Your task to perform on an android device: change the clock style Image 0: 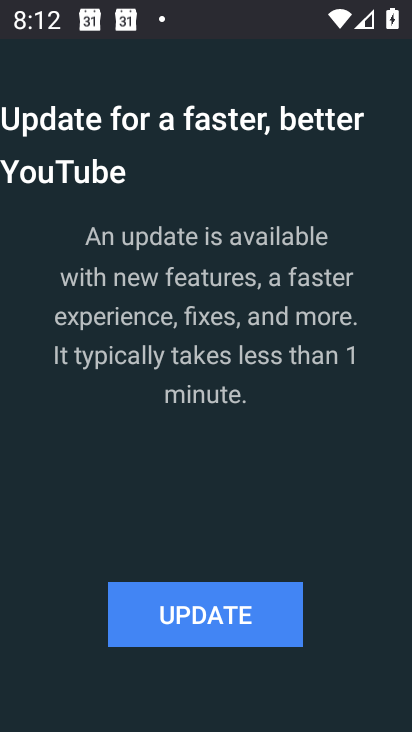
Step 0: press home button
Your task to perform on an android device: change the clock style Image 1: 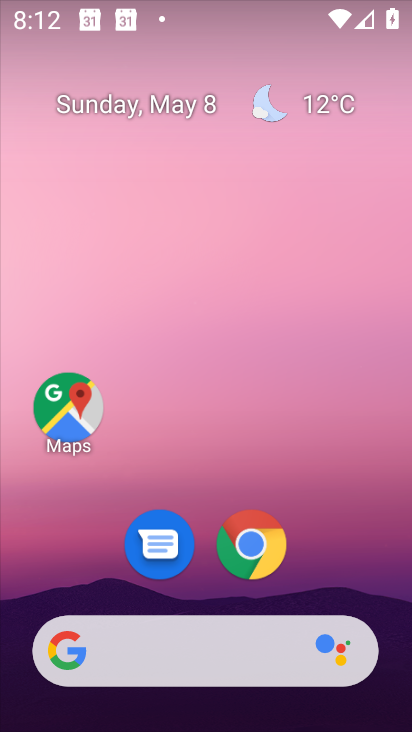
Step 1: drag from (355, 575) to (202, 40)
Your task to perform on an android device: change the clock style Image 2: 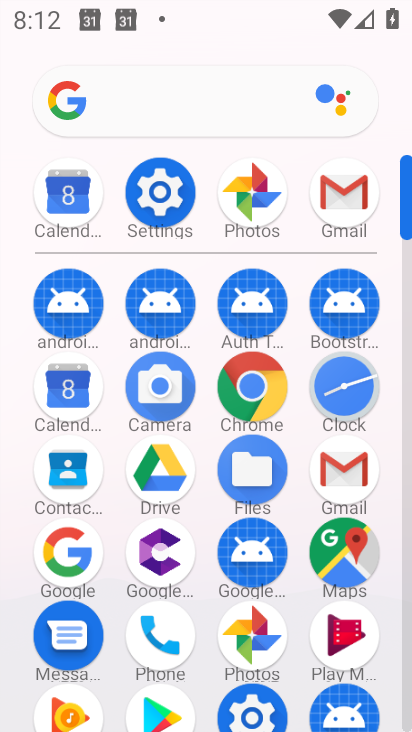
Step 2: click (345, 392)
Your task to perform on an android device: change the clock style Image 3: 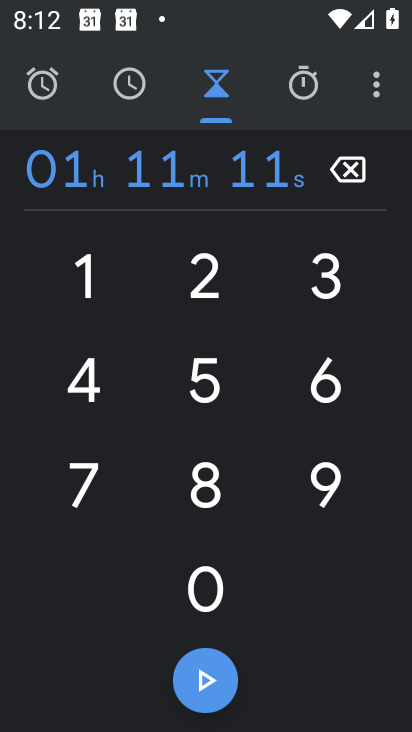
Step 3: click (377, 84)
Your task to perform on an android device: change the clock style Image 4: 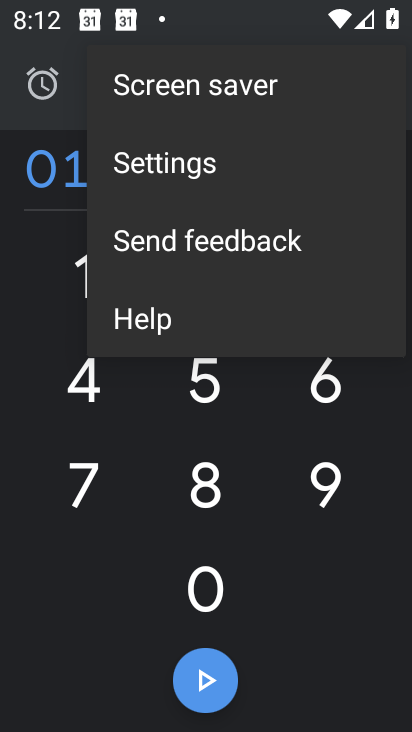
Step 4: click (162, 167)
Your task to perform on an android device: change the clock style Image 5: 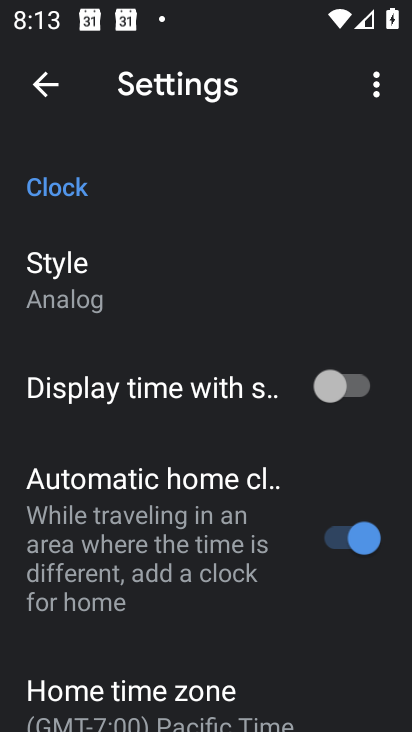
Step 5: drag from (167, 427) to (140, 188)
Your task to perform on an android device: change the clock style Image 6: 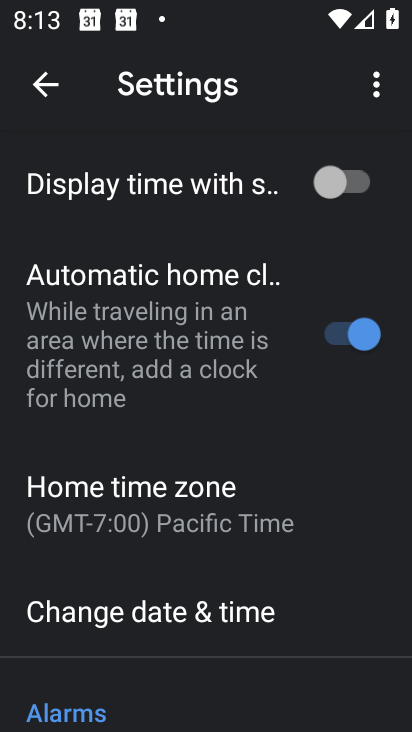
Step 6: drag from (179, 239) to (272, 719)
Your task to perform on an android device: change the clock style Image 7: 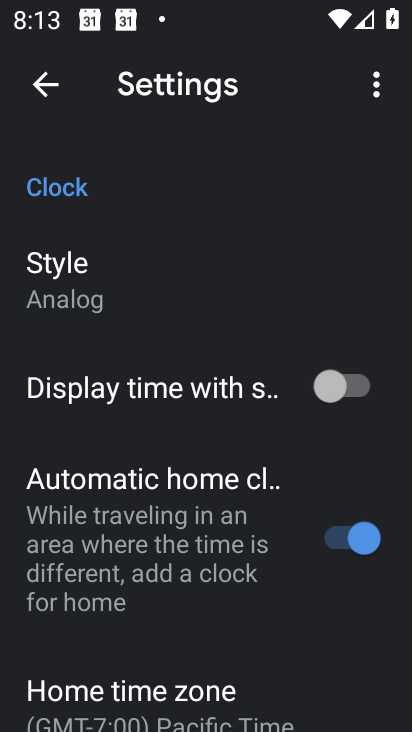
Step 7: click (78, 274)
Your task to perform on an android device: change the clock style Image 8: 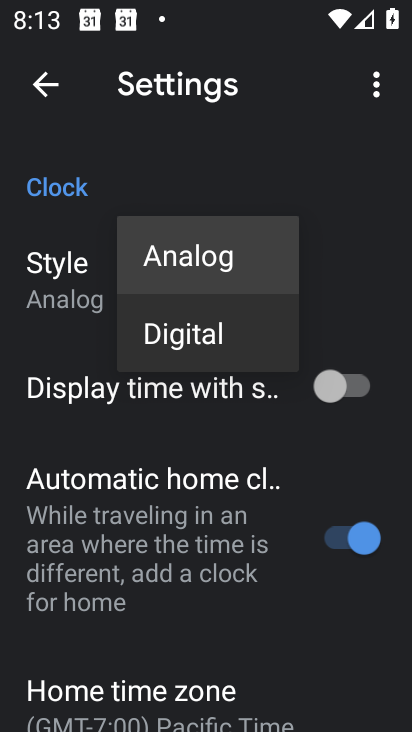
Step 8: click (175, 332)
Your task to perform on an android device: change the clock style Image 9: 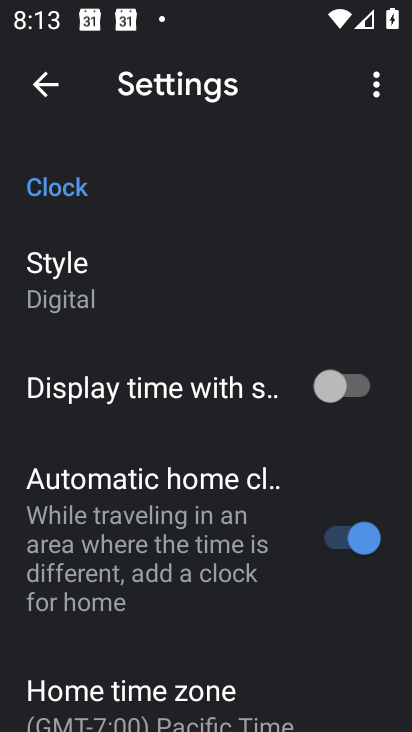
Step 9: task complete